Your task to perform on an android device: View the shopping cart on target. Add "lg ultragear" to the cart on target Image 0: 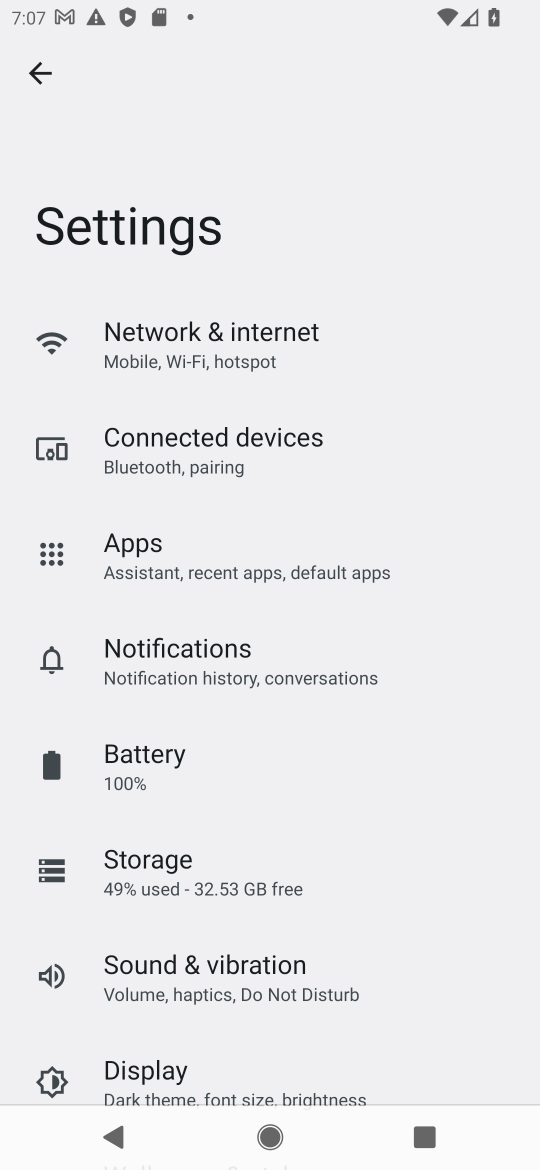
Step 0: press home button
Your task to perform on an android device: View the shopping cart on target. Add "lg ultragear" to the cart on target Image 1: 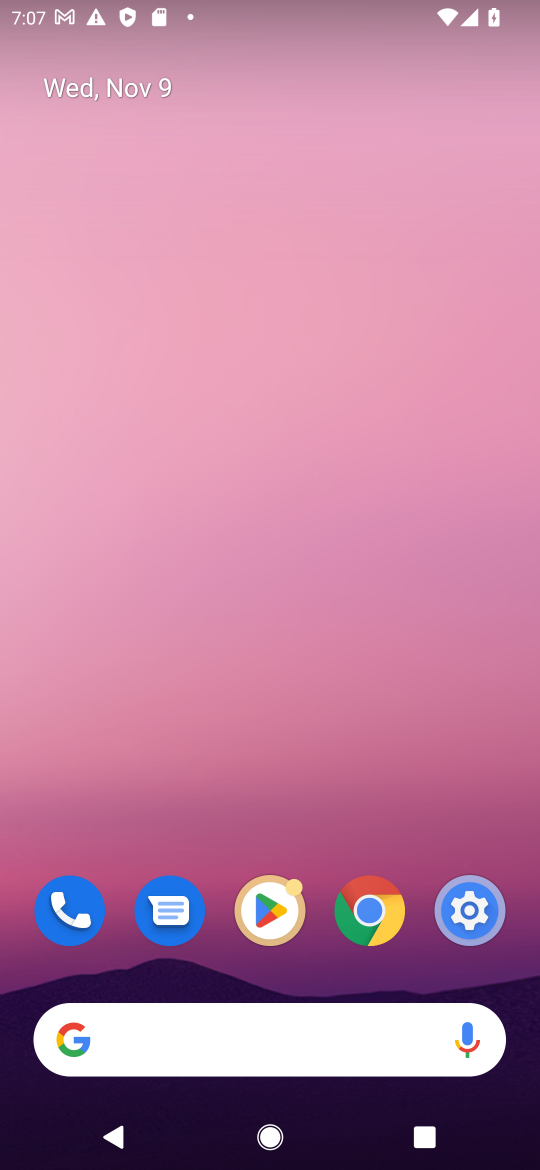
Step 1: click (364, 921)
Your task to perform on an android device: View the shopping cart on target. Add "lg ultragear" to the cart on target Image 2: 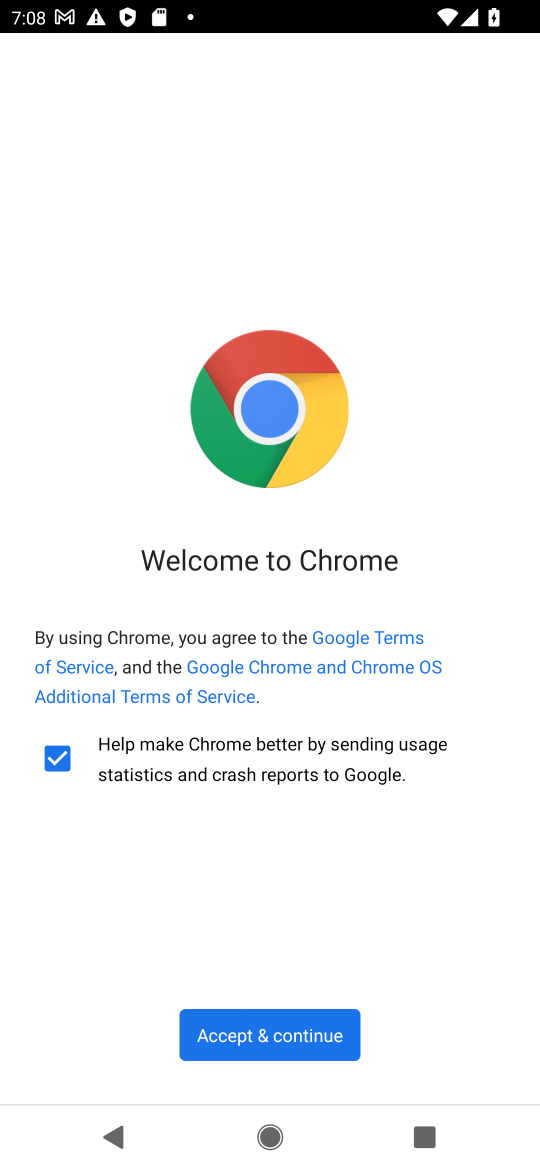
Step 2: click (283, 1022)
Your task to perform on an android device: View the shopping cart on target. Add "lg ultragear" to the cart on target Image 3: 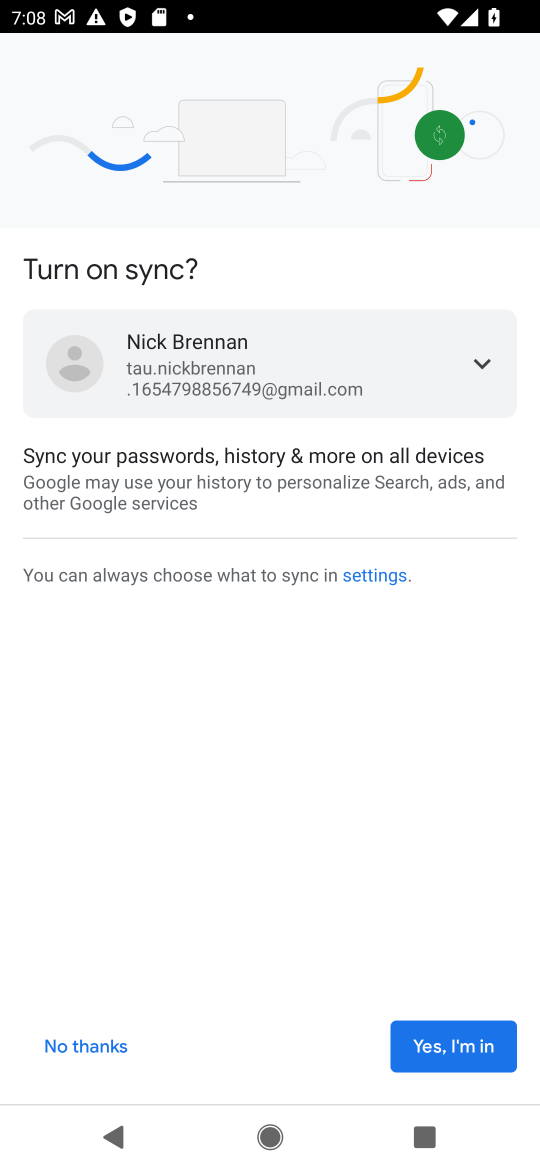
Step 3: click (425, 1049)
Your task to perform on an android device: View the shopping cart on target. Add "lg ultragear" to the cart on target Image 4: 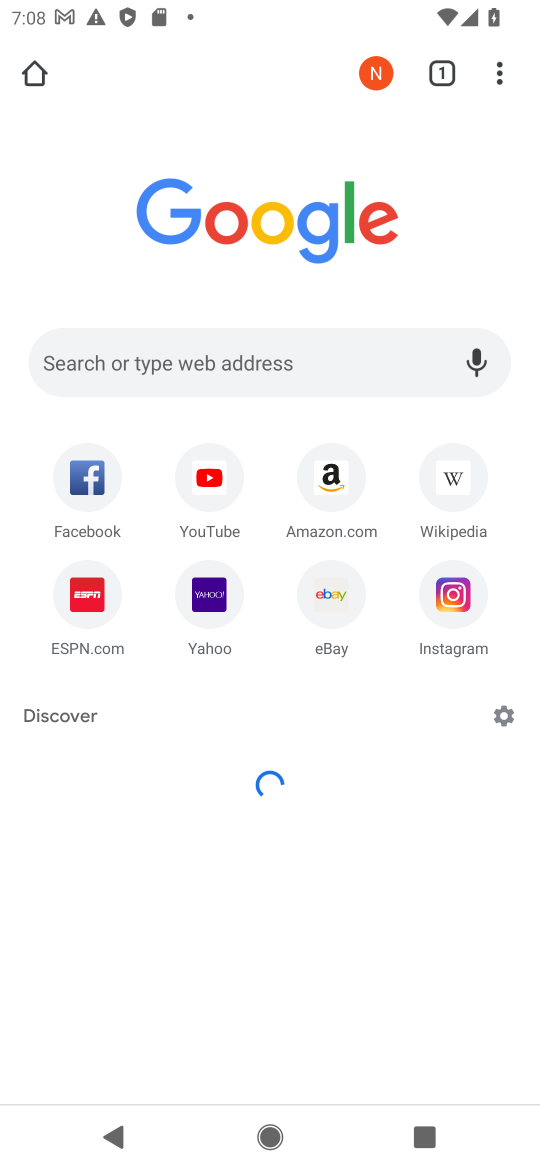
Step 4: click (169, 345)
Your task to perform on an android device: View the shopping cart on target. Add "lg ultragear" to the cart on target Image 5: 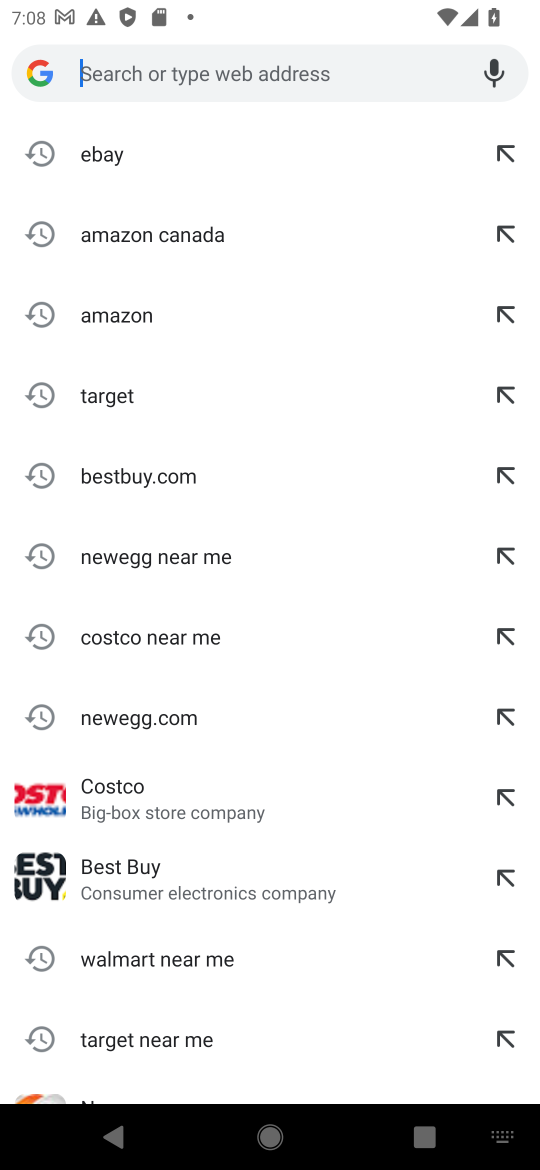
Step 5: click (108, 91)
Your task to perform on an android device: View the shopping cart on target. Add "lg ultragear" to the cart on target Image 6: 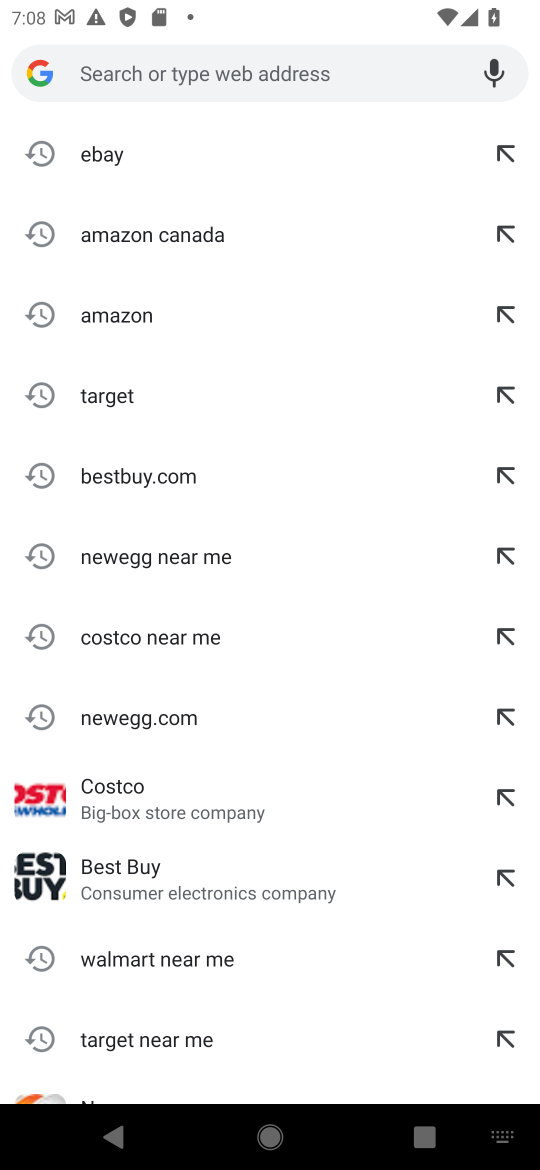
Step 6: type "target.com"
Your task to perform on an android device: View the shopping cart on target. Add "lg ultragear" to the cart on target Image 7: 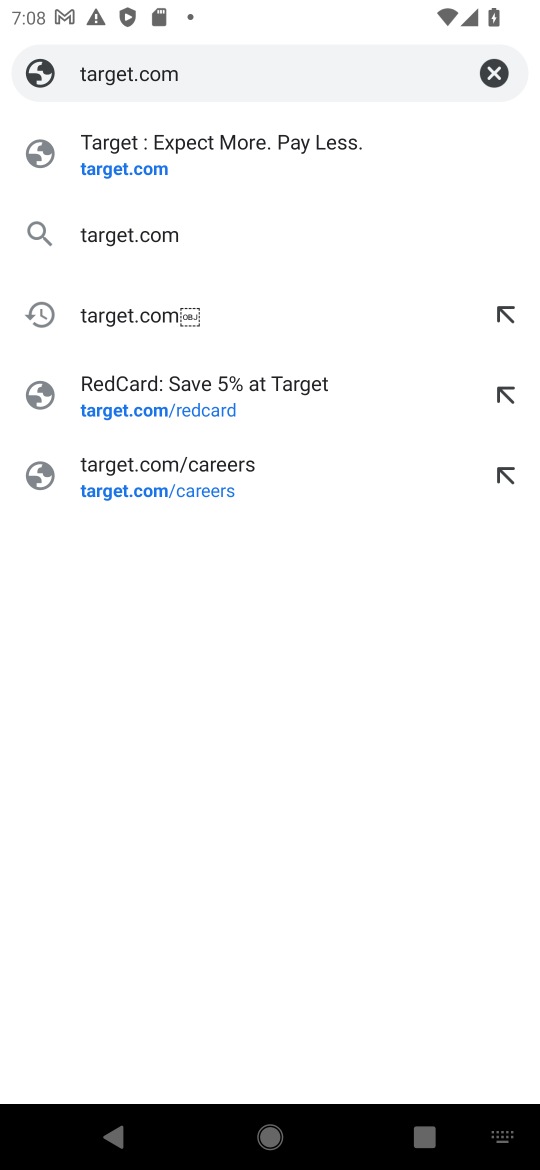
Step 7: click (121, 183)
Your task to perform on an android device: View the shopping cart on target. Add "lg ultragear" to the cart on target Image 8: 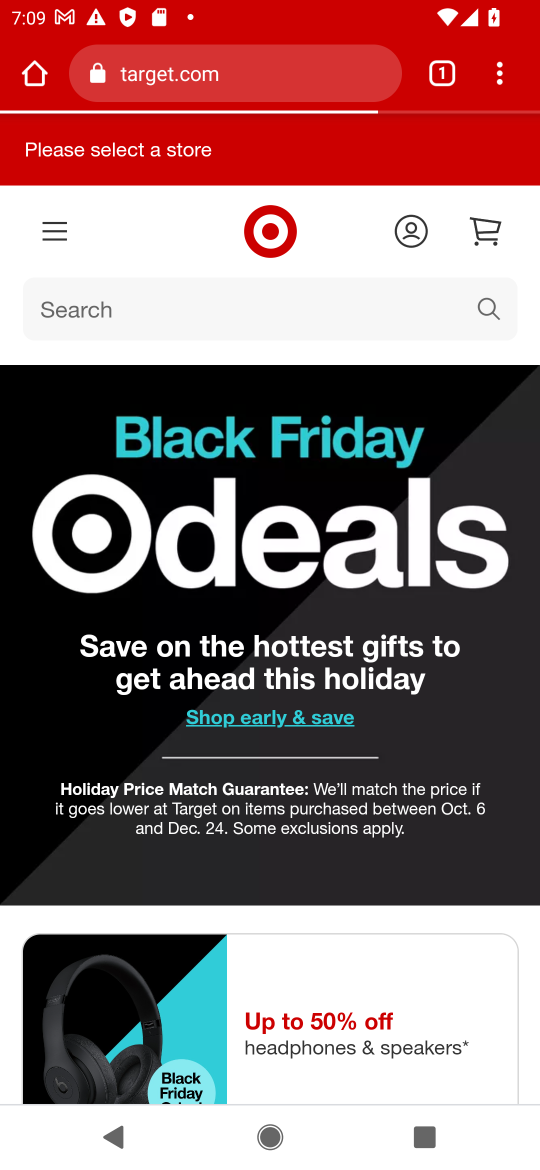
Step 8: click (368, 323)
Your task to perform on an android device: View the shopping cart on target. Add "lg ultragear" to the cart on target Image 9: 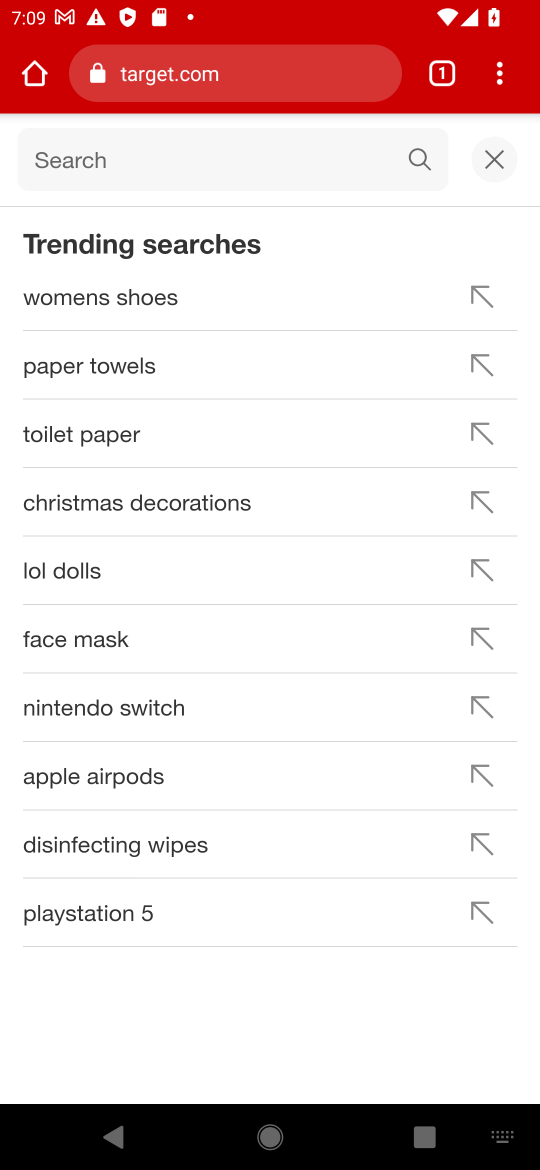
Step 9: click (491, 165)
Your task to perform on an android device: View the shopping cart on target. Add "lg ultragear" to the cart on target Image 10: 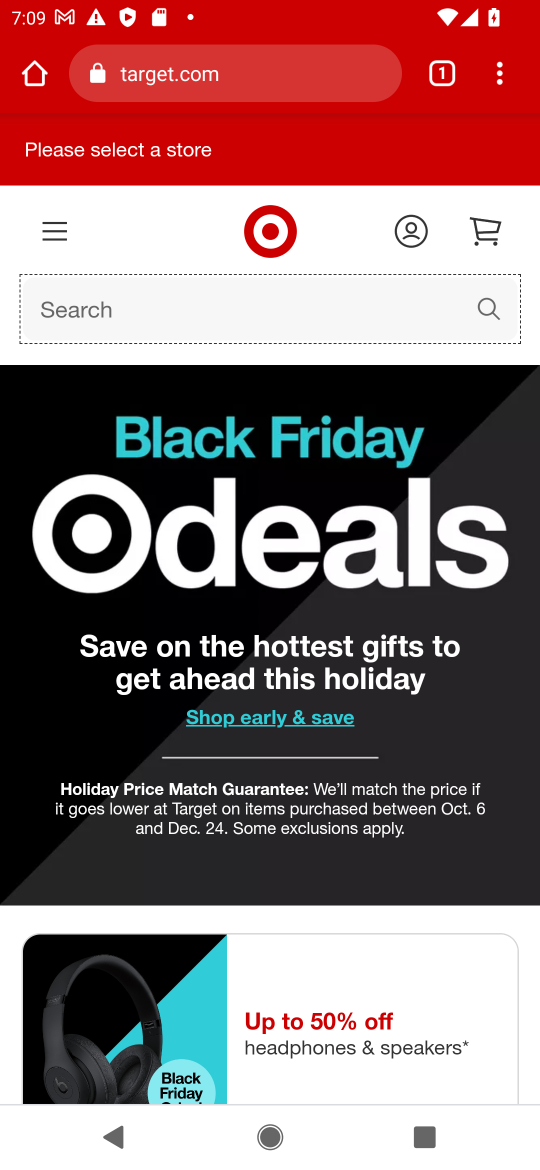
Step 10: click (467, 219)
Your task to perform on an android device: View the shopping cart on target. Add "lg ultragear" to the cart on target Image 11: 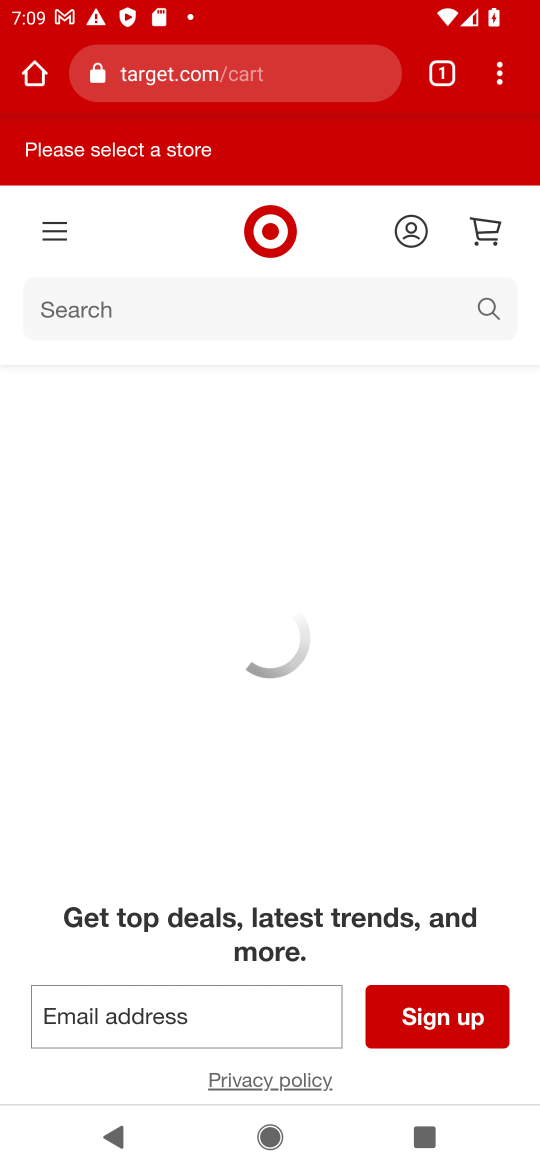
Step 11: click (460, 307)
Your task to perform on an android device: View the shopping cart on target. Add "lg ultragear" to the cart on target Image 12: 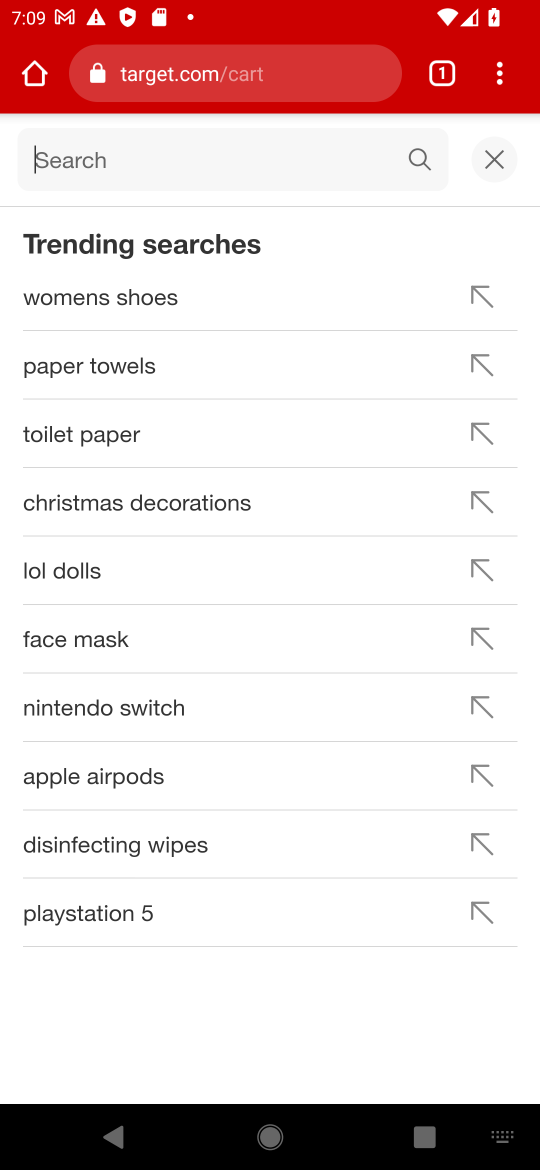
Step 12: type "lg ultragear"
Your task to perform on an android device: View the shopping cart on target. Add "lg ultragear" to the cart on target Image 13: 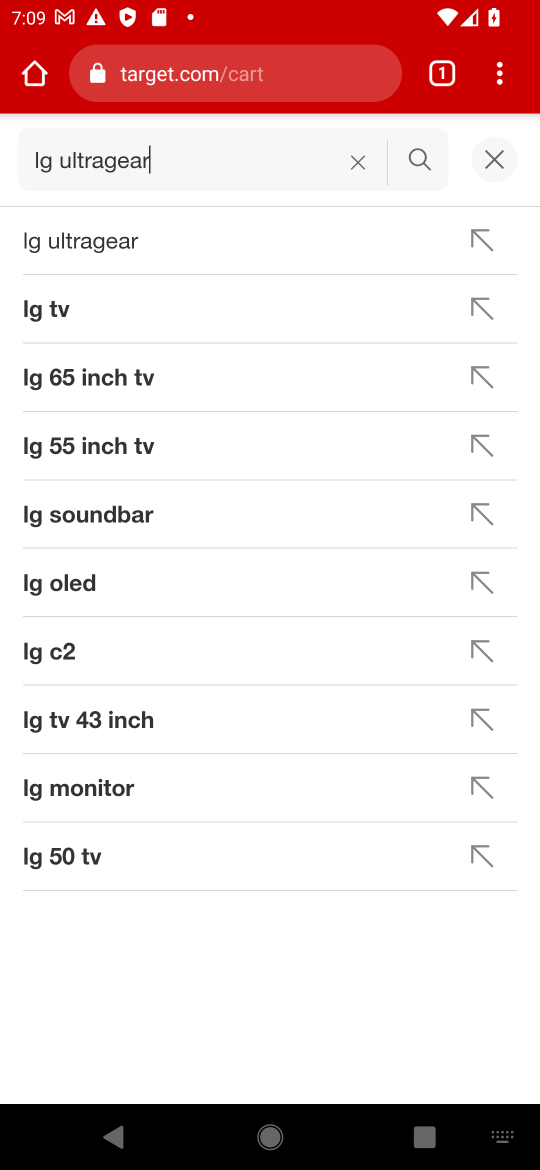
Step 13: click (74, 248)
Your task to perform on an android device: View the shopping cart on target. Add "lg ultragear" to the cart on target Image 14: 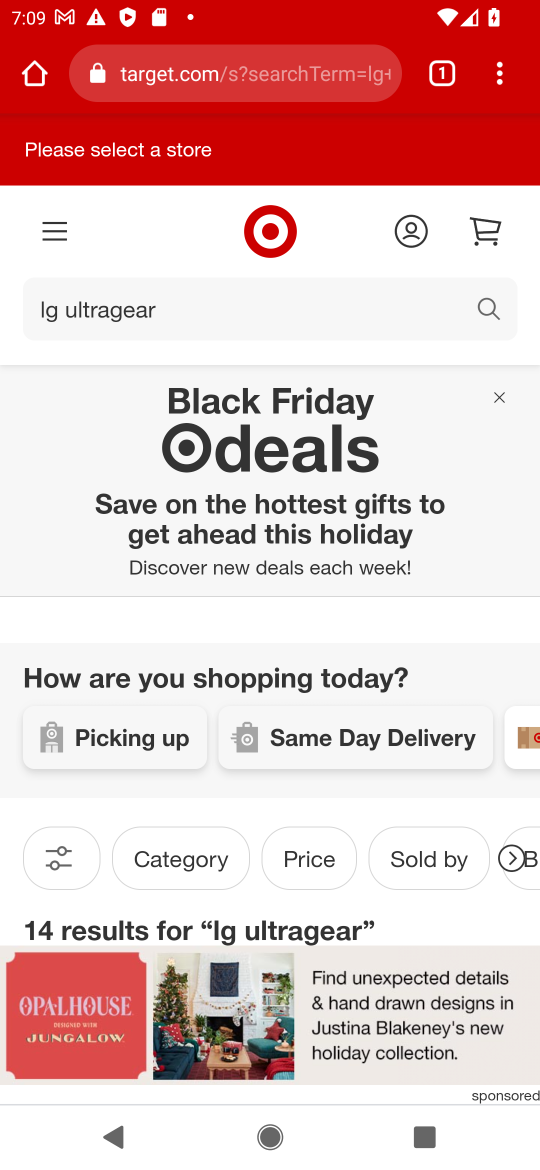
Step 14: drag from (212, 778) to (222, 238)
Your task to perform on an android device: View the shopping cart on target. Add "lg ultragear" to the cart on target Image 15: 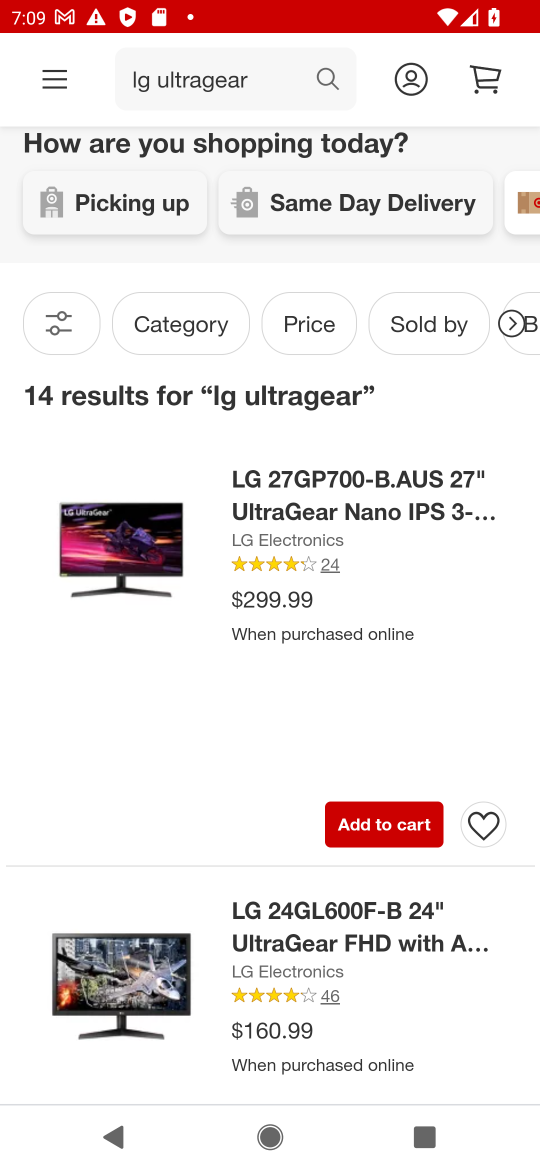
Step 15: click (361, 835)
Your task to perform on an android device: View the shopping cart on target. Add "lg ultragear" to the cart on target Image 16: 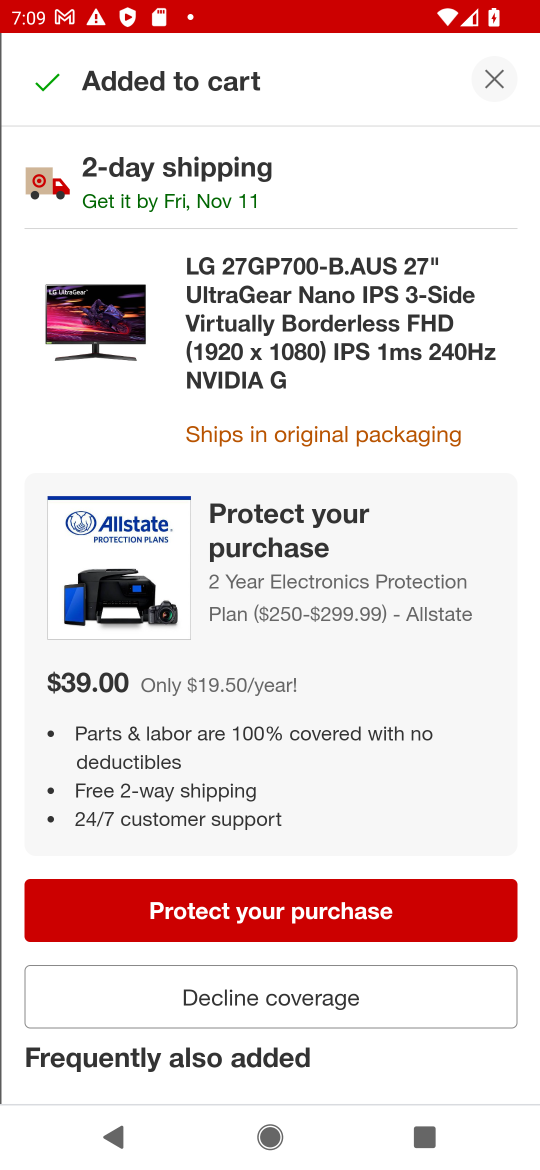
Step 16: task complete